Your task to perform on an android device: toggle translation in the chrome app Image 0: 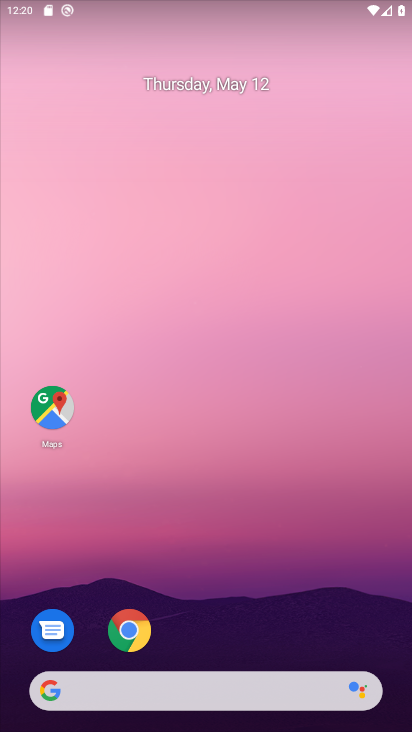
Step 0: drag from (268, 621) to (324, 16)
Your task to perform on an android device: toggle translation in the chrome app Image 1: 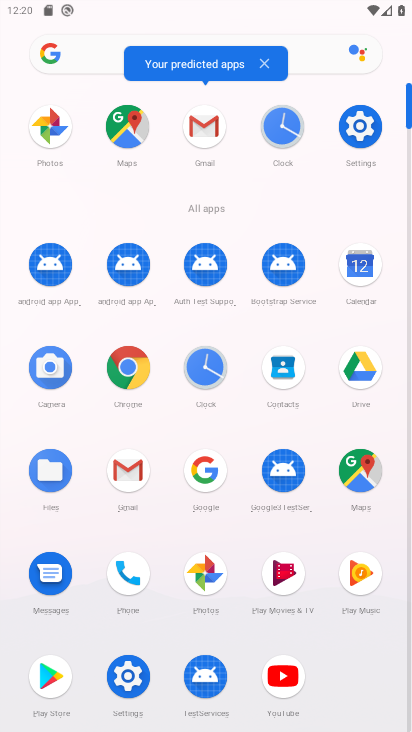
Step 1: click (135, 359)
Your task to perform on an android device: toggle translation in the chrome app Image 2: 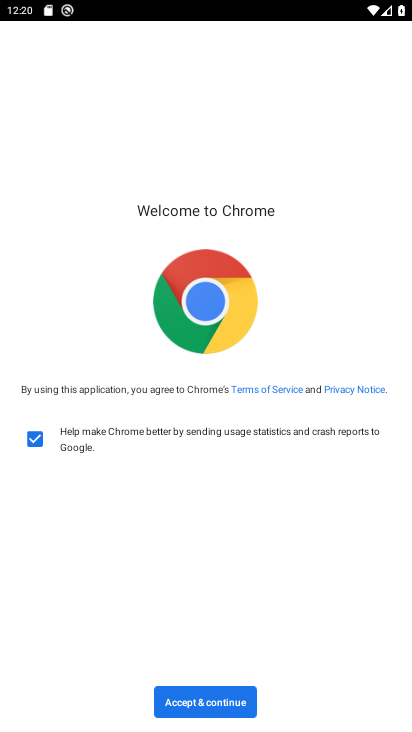
Step 2: click (202, 697)
Your task to perform on an android device: toggle translation in the chrome app Image 3: 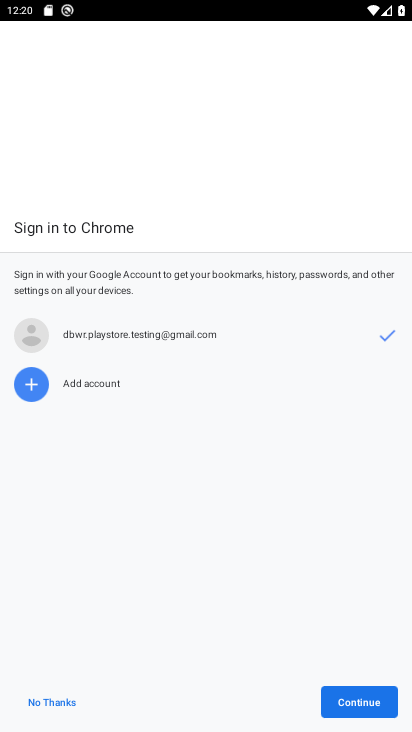
Step 3: click (378, 693)
Your task to perform on an android device: toggle translation in the chrome app Image 4: 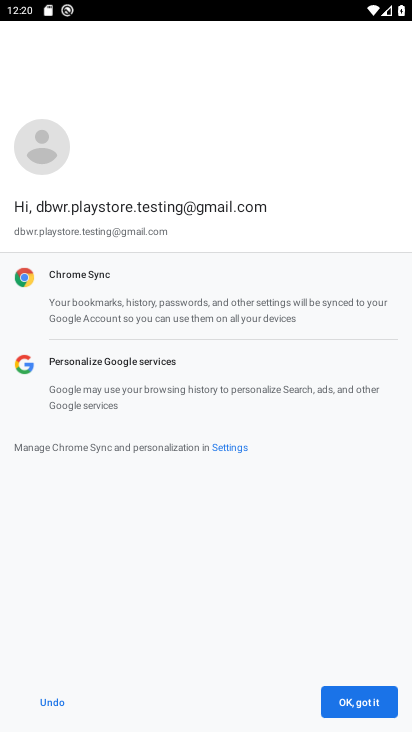
Step 4: click (378, 693)
Your task to perform on an android device: toggle translation in the chrome app Image 5: 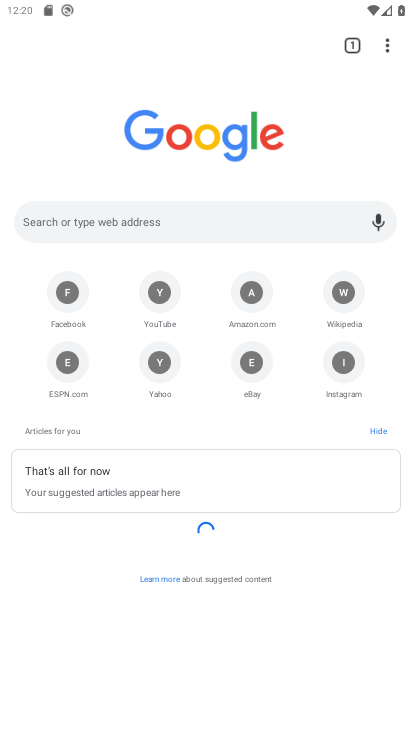
Step 5: drag from (385, 50) to (232, 378)
Your task to perform on an android device: toggle translation in the chrome app Image 6: 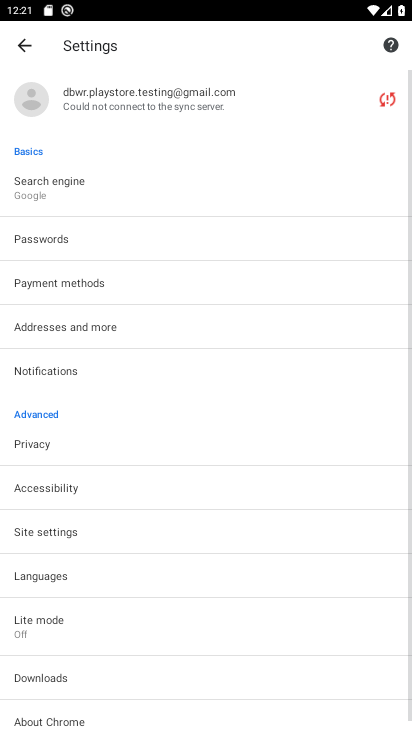
Step 6: drag from (207, 633) to (214, 193)
Your task to perform on an android device: toggle translation in the chrome app Image 7: 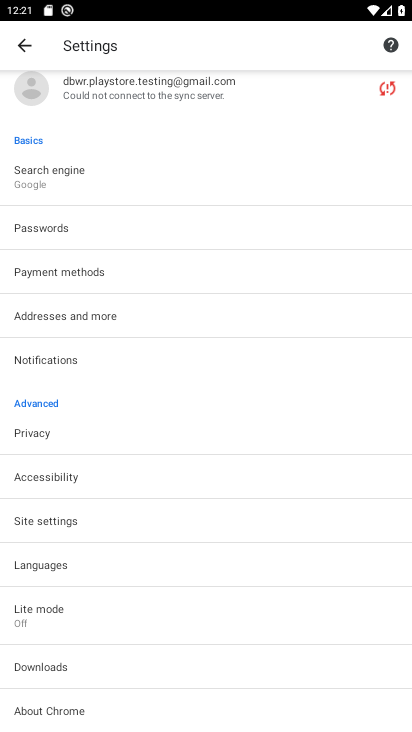
Step 7: click (34, 557)
Your task to perform on an android device: toggle translation in the chrome app Image 8: 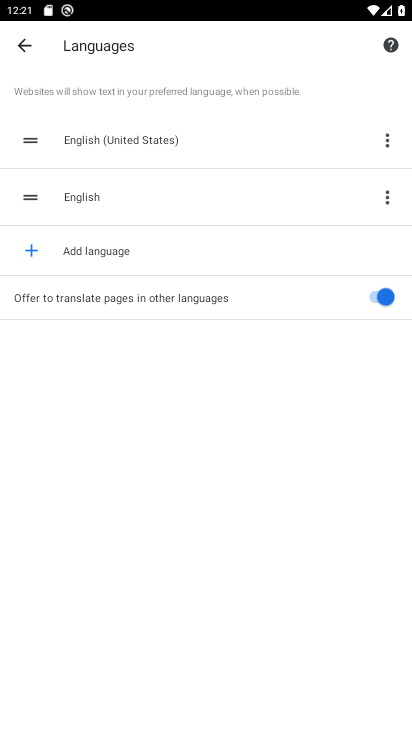
Step 8: click (372, 294)
Your task to perform on an android device: toggle translation in the chrome app Image 9: 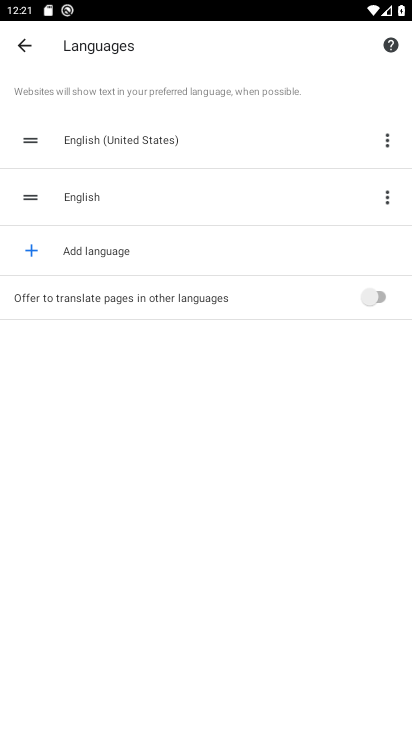
Step 9: task complete